Your task to perform on an android device: open chrome and create a bookmark for the current page Image 0: 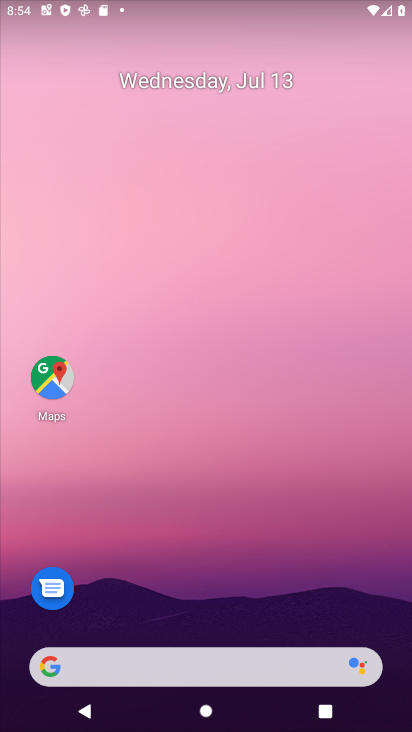
Step 0: drag from (133, 667) to (160, 49)
Your task to perform on an android device: open chrome and create a bookmark for the current page Image 1: 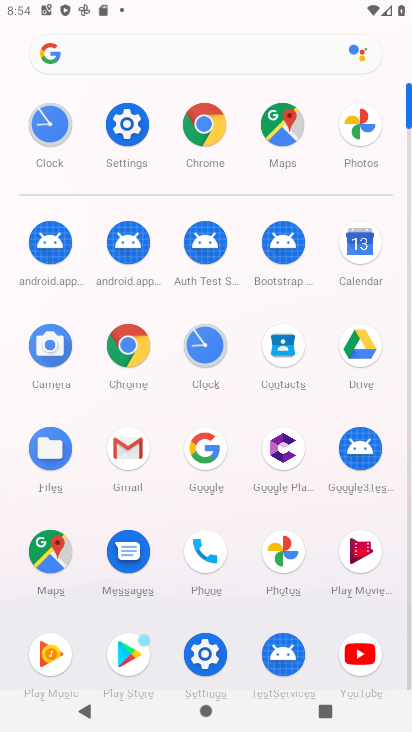
Step 1: click (213, 130)
Your task to perform on an android device: open chrome and create a bookmark for the current page Image 2: 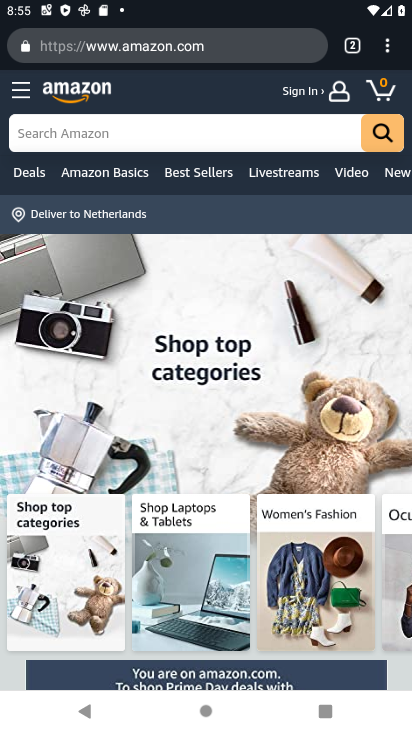
Step 2: click (389, 45)
Your task to perform on an android device: open chrome and create a bookmark for the current page Image 3: 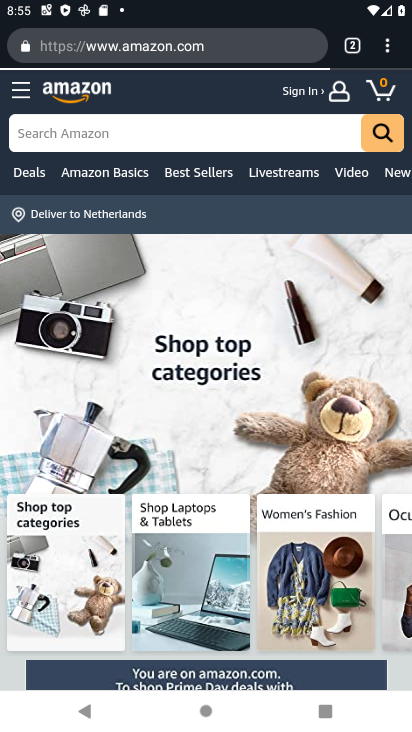
Step 3: click (382, 48)
Your task to perform on an android device: open chrome and create a bookmark for the current page Image 4: 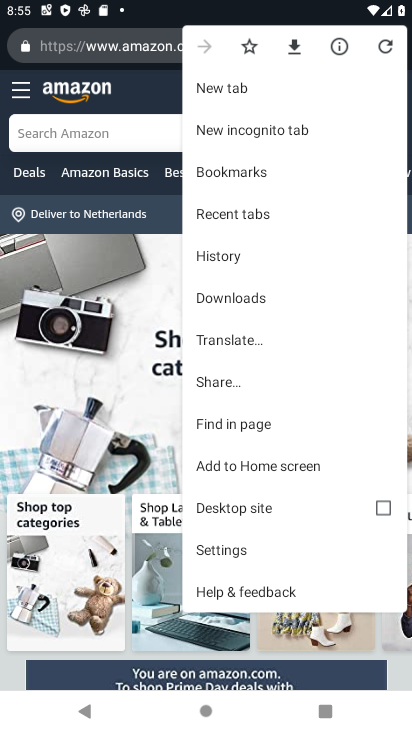
Step 4: click (251, 46)
Your task to perform on an android device: open chrome and create a bookmark for the current page Image 5: 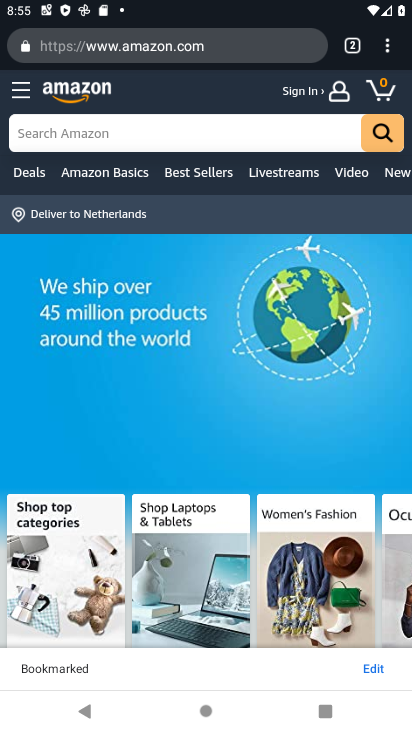
Step 5: click (385, 51)
Your task to perform on an android device: open chrome and create a bookmark for the current page Image 6: 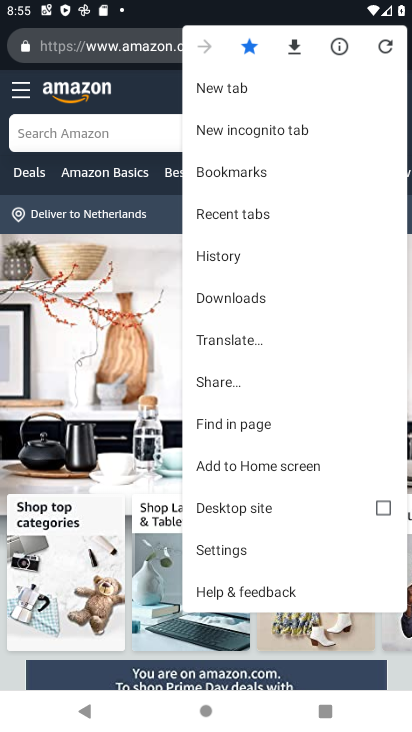
Step 6: task complete